Your task to perform on an android device: Open Chrome and go to settings Image 0: 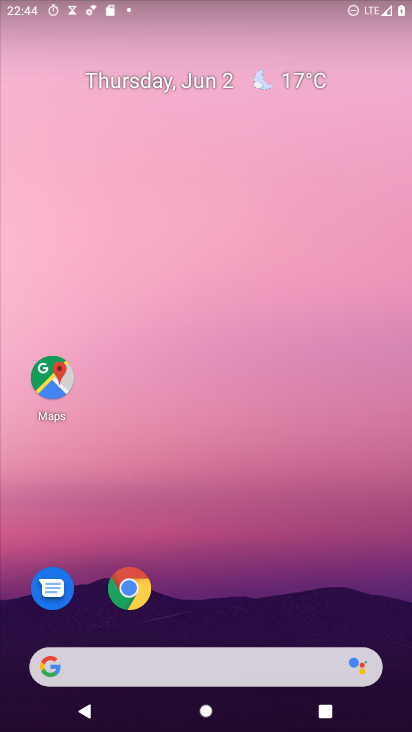
Step 0: click (156, 600)
Your task to perform on an android device: Open Chrome and go to settings Image 1: 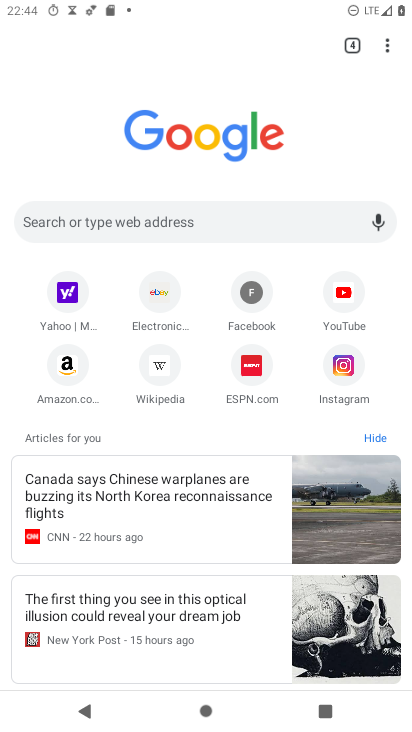
Step 1: task complete